Your task to perform on an android device: turn on notifications settings in the gmail app Image 0: 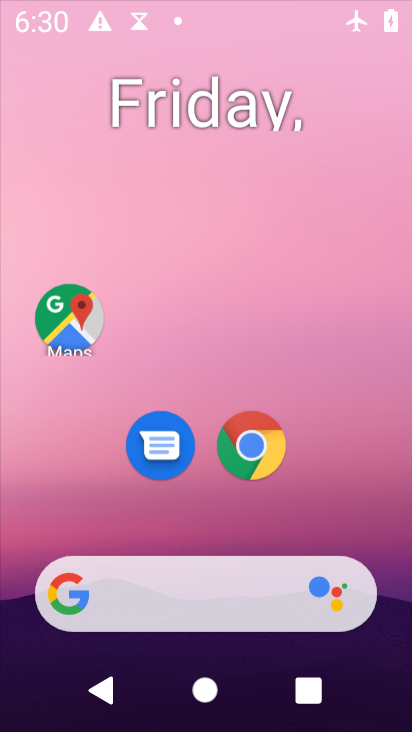
Step 0: click (237, 137)
Your task to perform on an android device: turn on notifications settings in the gmail app Image 1: 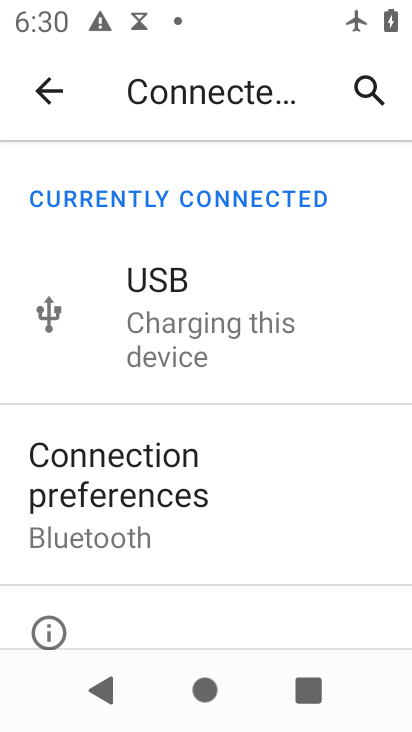
Step 1: press home button
Your task to perform on an android device: turn on notifications settings in the gmail app Image 2: 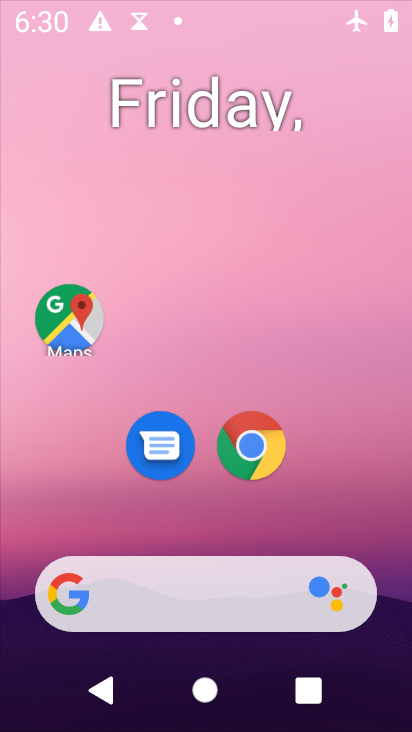
Step 2: drag from (228, 355) to (253, 100)
Your task to perform on an android device: turn on notifications settings in the gmail app Image 3: 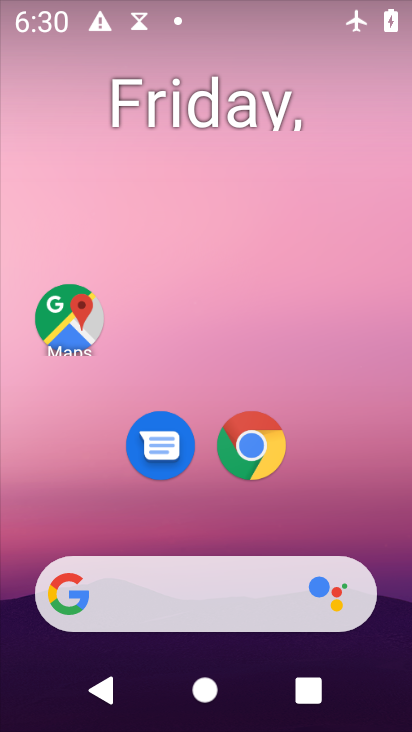
Step 3: drag from (169, 539) to (247, 57)
Your task to perform on an android device: turn on notifications settings in the gmail app Image 4: 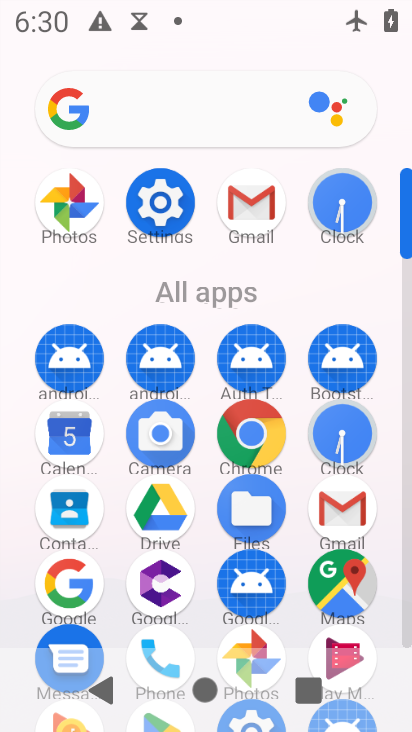
Step 4: click (249, 198)
Your task to perform on an android device: turn on notifications settings in the gmail app Image 5: 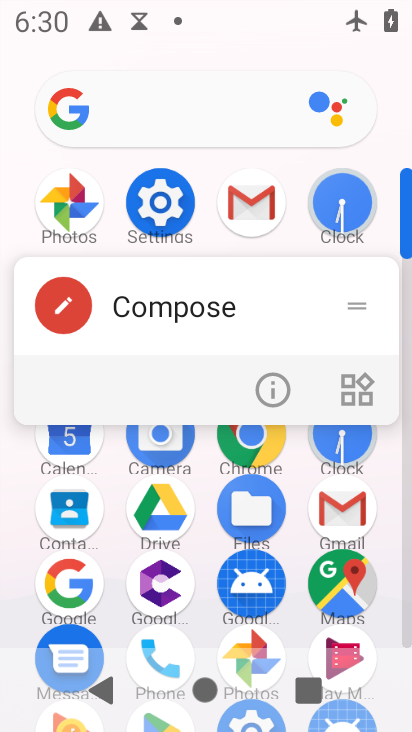
Step 5: click (259, 389)
Your task to perform on an android device: turn on notifications settings in the gmail app Image 6: 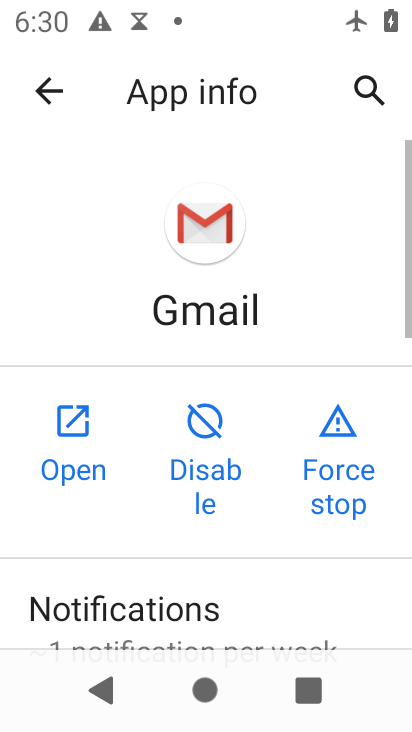
Step 6: click (47, 425)
Your task to perform on an android device: turn on notifications settings in the gmail app Image 7: 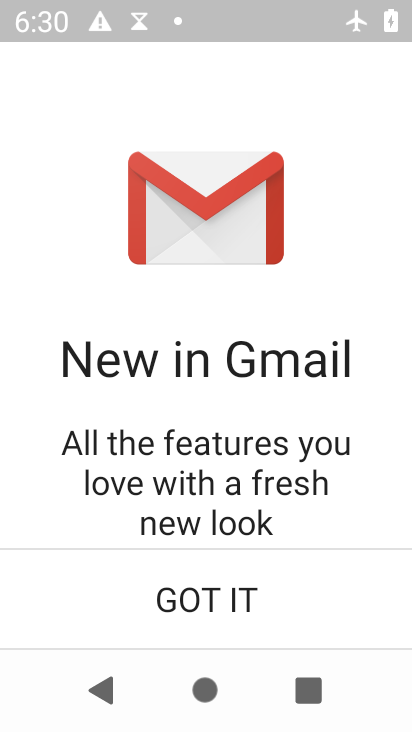
Step 7: click (210, 593)
Your task to perform on an android device: turn on notifications settings in the gmail app Image 8: 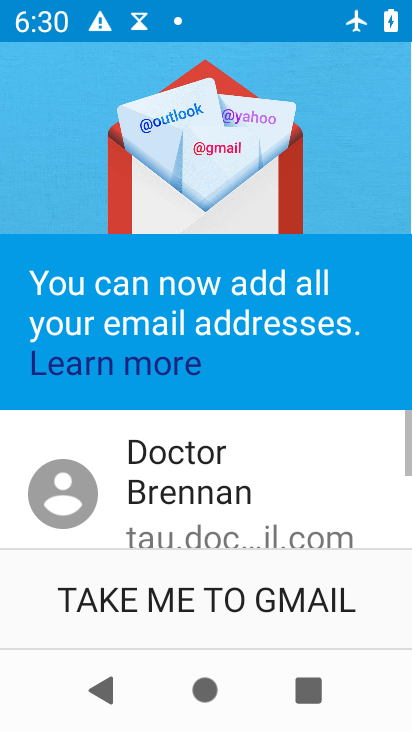
Step 8: drag from (220, 558) to (239, 246)
Your task to perform on an android device: turn on notifications settings in the gmail app Image 9: 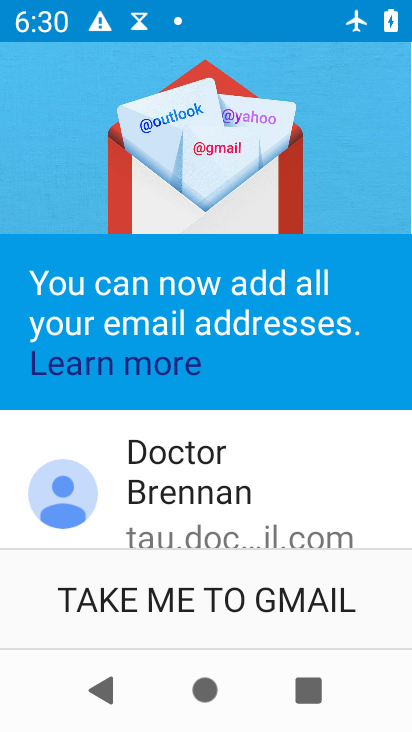
Step 9: click (167, 598)
Your task to perform on an android device: turn on notifications settings in the gmail app Image 10: 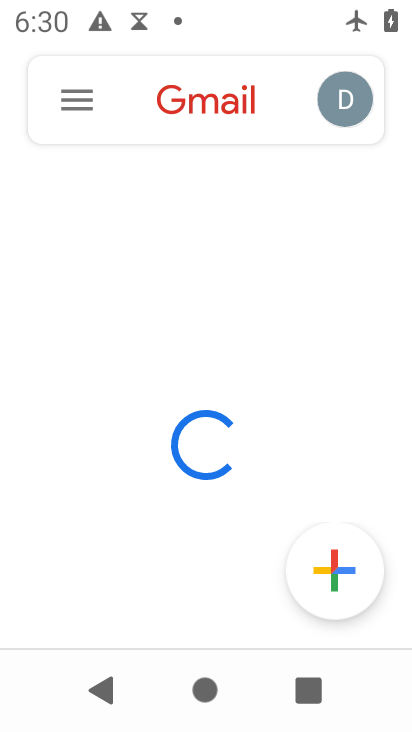
Step 10: click (61, 104)
Your task to perform on an android device: turn on notifications settings in the gmail app Image 11: 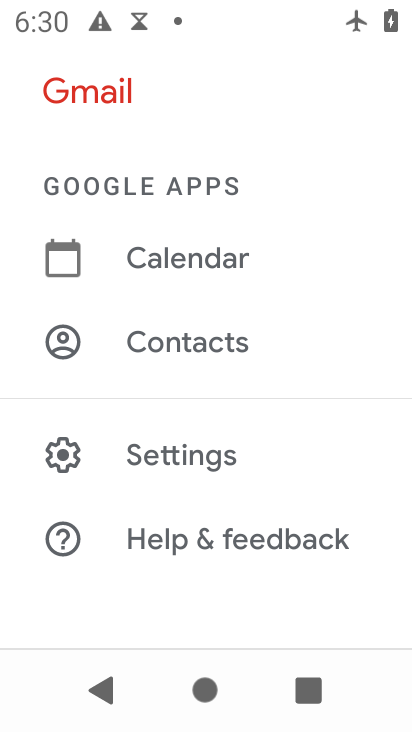
Step 11: drag from (167, 567) to (241, 309)
Your task to perform on an android device: turn on notifications settings in the gmail app Image 12: 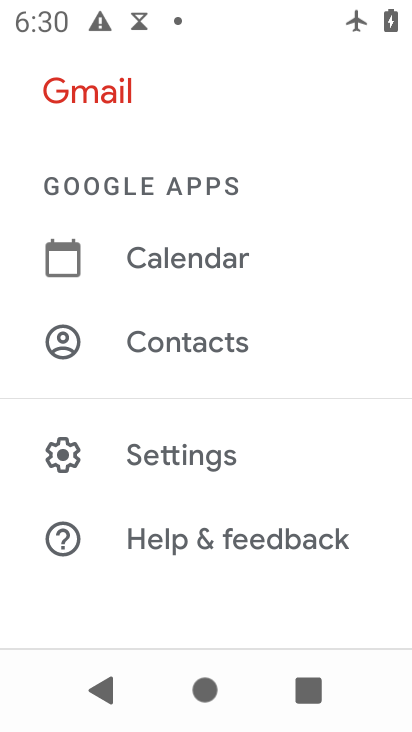
Step 12: click (167, 467)
Your task to perform on an android device: turn on notifications settings in the gmail app Image 13: 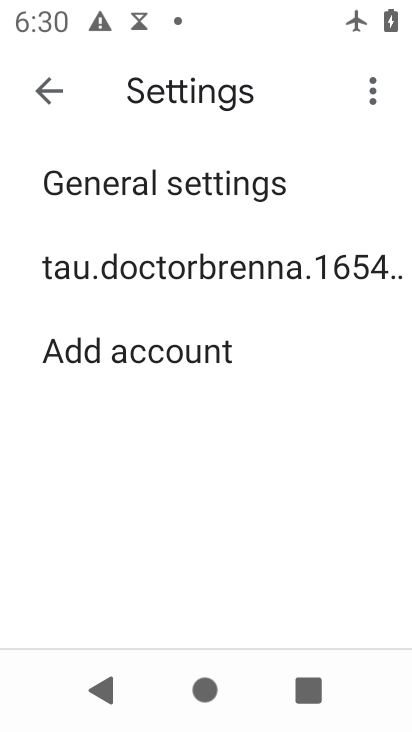
Step 13: drag from (220, 369) to (255, 209)
Your task to perform on an android device: turn on notifications settings in the gmail app Image 14: 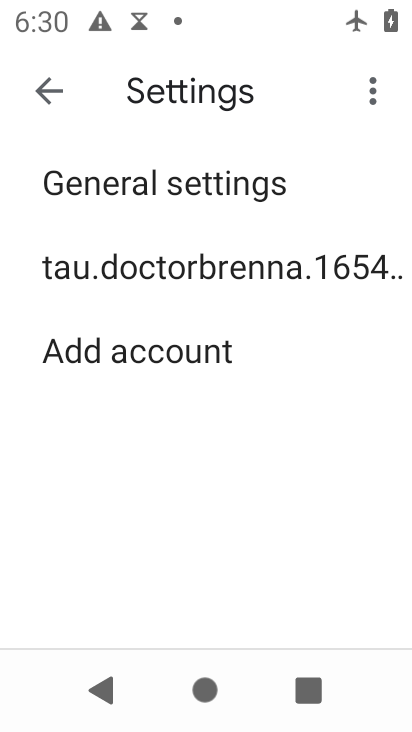
Step 14: click (174, 272)
Your task to perform on an android device: turn on notifications settings in the gmail app Image 15: 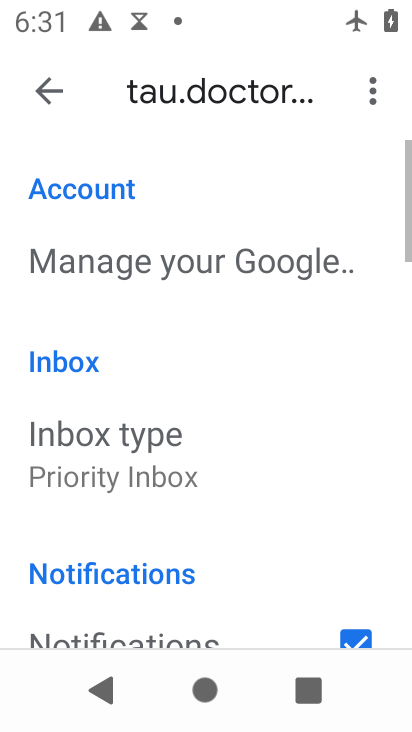
Step 15: drag from (149, 547) to (236, 100)
Your task to perform on an android device: turn on notifications settings in the gmail app Image 16: 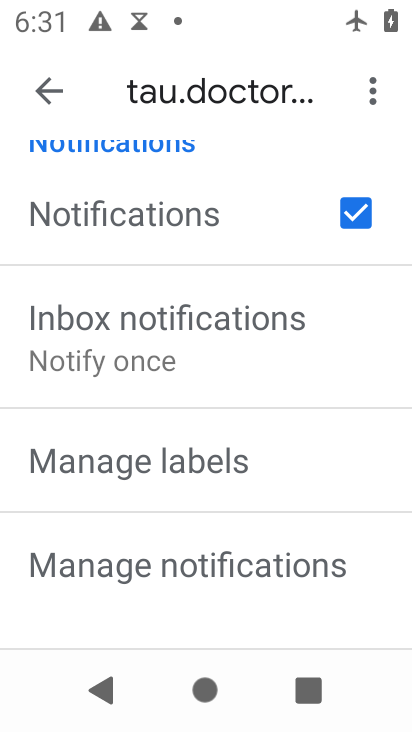
Step 16: drag from (172, 529) to (231, 214)
Your task to perform on an android device: turn on notifications settings in the gmail app Image 17: 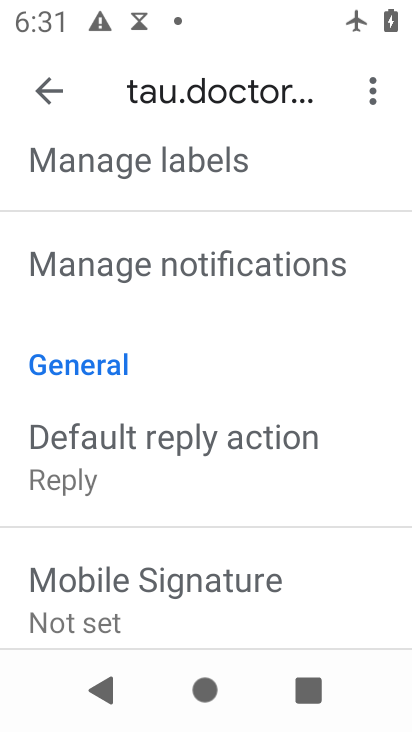
Step 17: click (194, 264)
Your task to perform on an android device: turn on notifications settings in the gmail app Image 18: 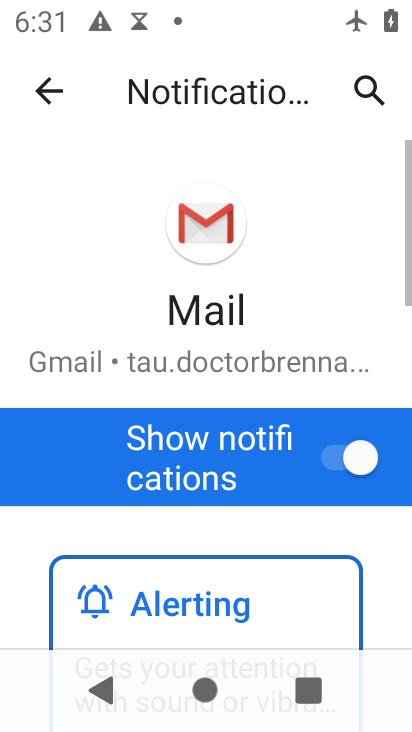
Step 18: task complete